Your task to perform on an android device: check android version Image 0: 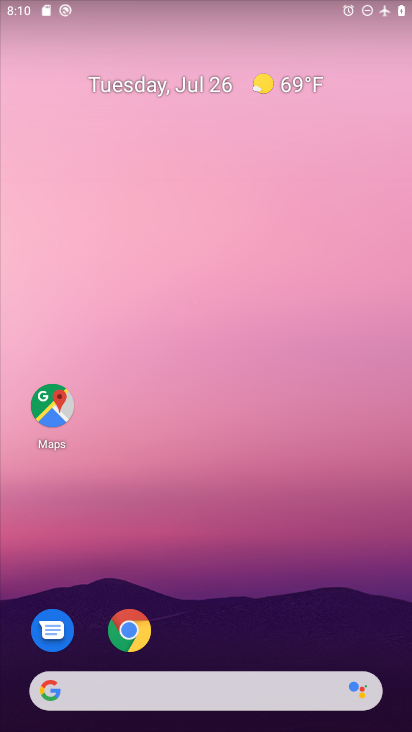
Step 0: drag from (317, 614) to (299, 172)
Your task to perform on an android device: check android version Image 1: 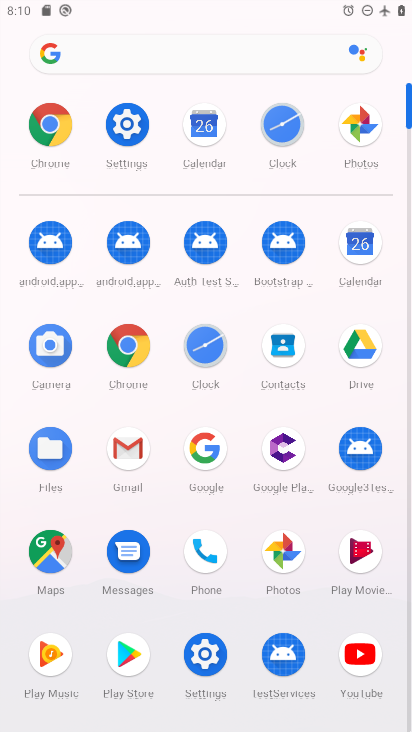
Step 1: click (218, 650)
Your task to perform on an android device: check android version Image 2: 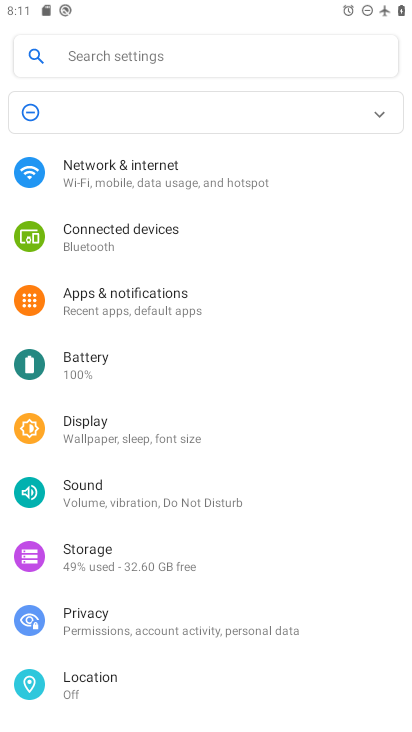
Step 2: drag from (202, 593) to (192, 109)
Your task to perform on an android device: check android version Image 3: 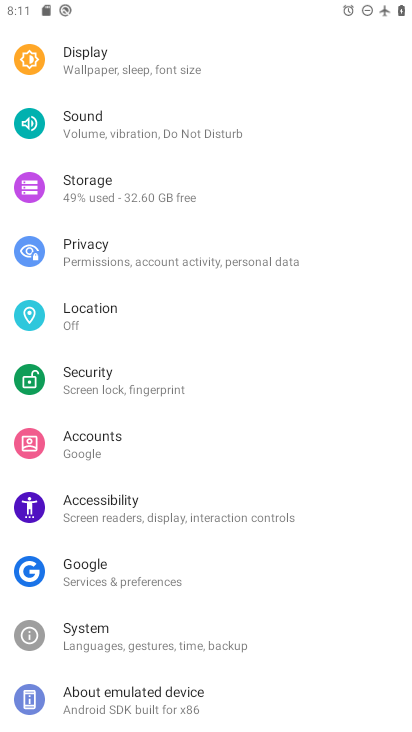
Step 3: click (142, 707)
Your task to perform on an android device: check android version Image 4: 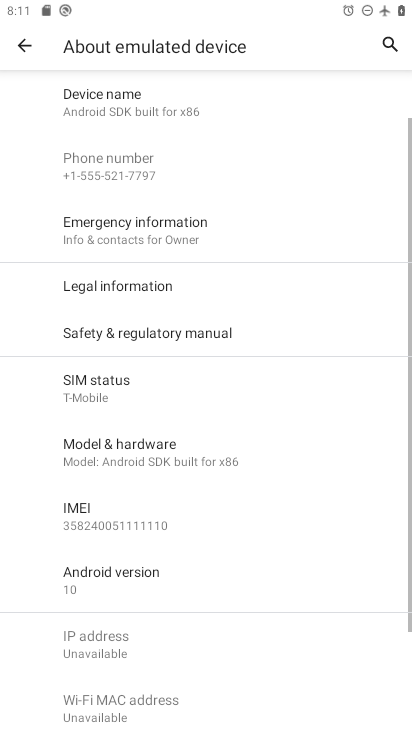
Step 4: drag from (199, 481) to (193, 268)
Your task to perform on an android device: check android version Image 5: 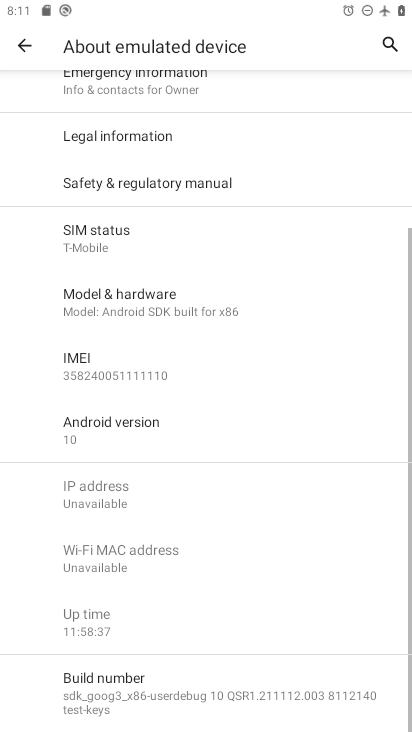
Step 5: click (178, 436)
Your task to perform on an android device: check android version Image 6: 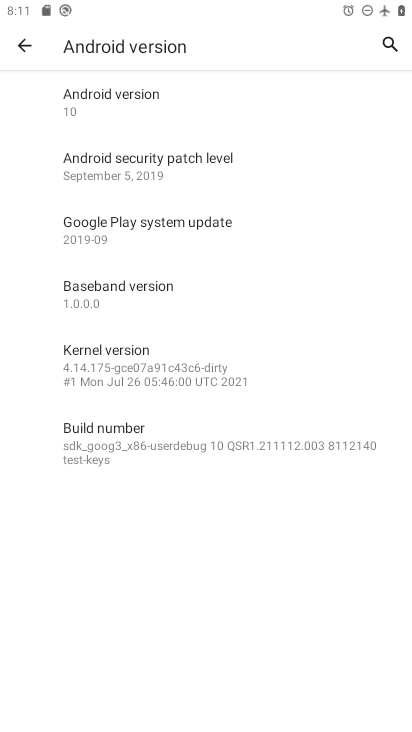
Step 6: task complete